Your task to perform on an android device: turn off notifications in google photos Image 0: 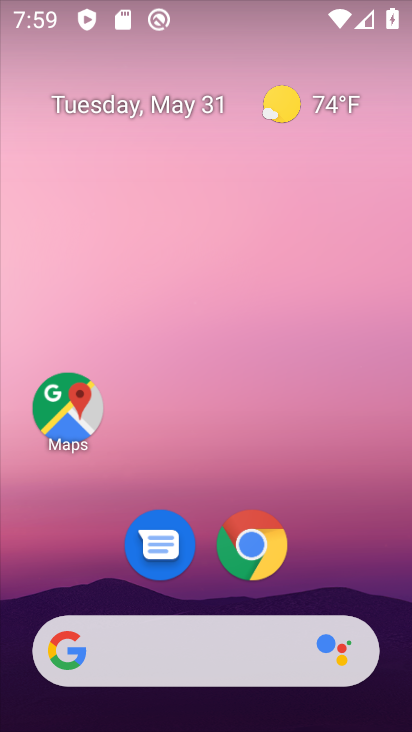
Step 0: drag from (333, 524) to (221, 1)
Your task to perform on an android device: turn off notifications in google photos Image 1: 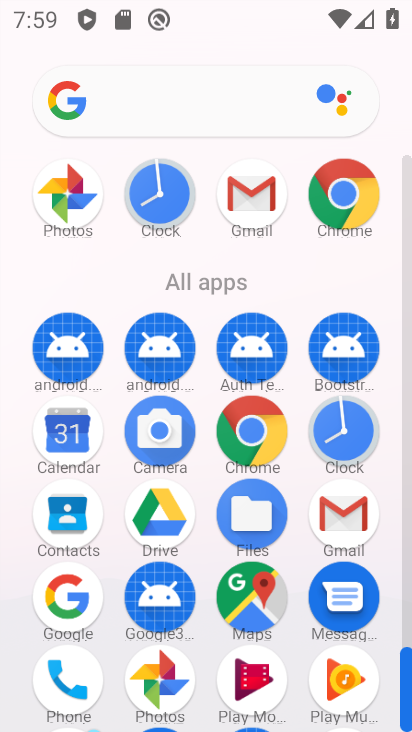
Step 1: drag from (17, 461) to (23, 257)
Your task to perform on an android device: turn off notifications in google photos Image 2: 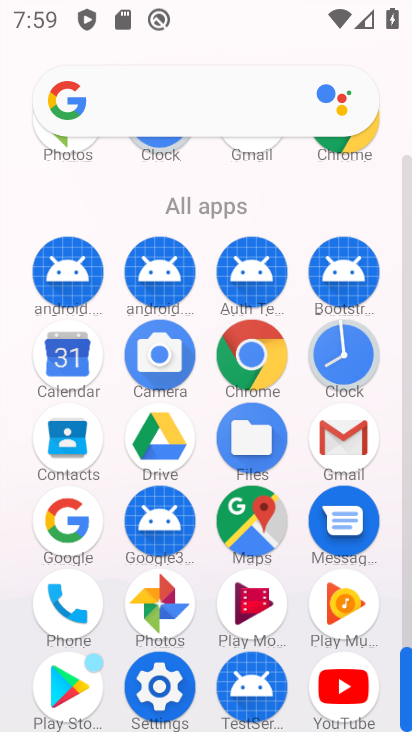
Step 2: click (154, 602)
Your task to perform on an android device: turn off notifications in google photos Image 3: 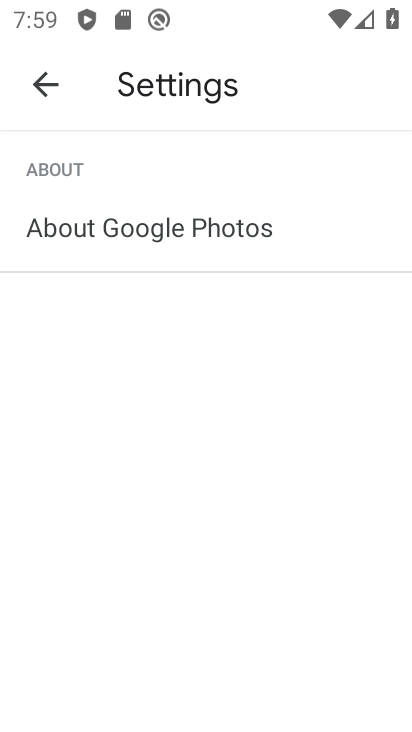
Step 3: click (39, 83)
Your task to perform on an android device: turn off notifications in google photos Image 4: 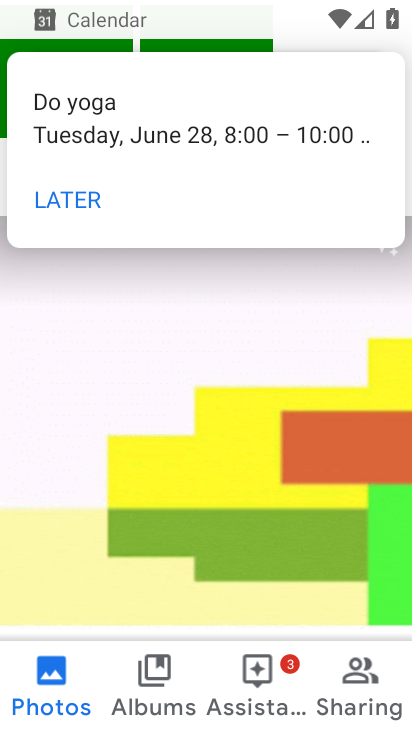
Step 4: click (78, 198)
Your task to perform on an android device: turn off notifications in google photos Image 5: 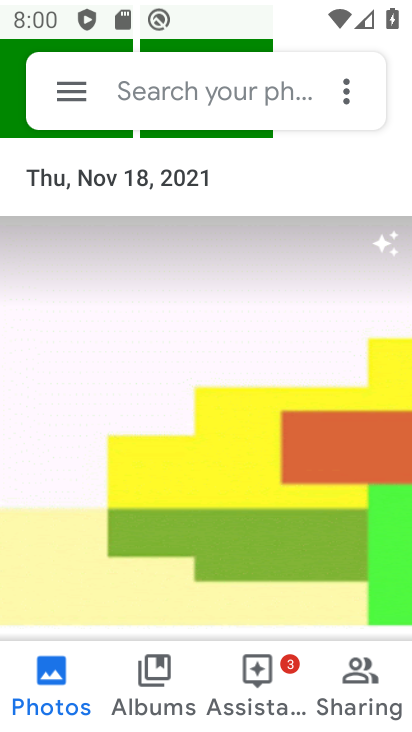
Step 5: click (72, 84)
Your task to perform on an android device: turn off notifications in google photos Image 6: 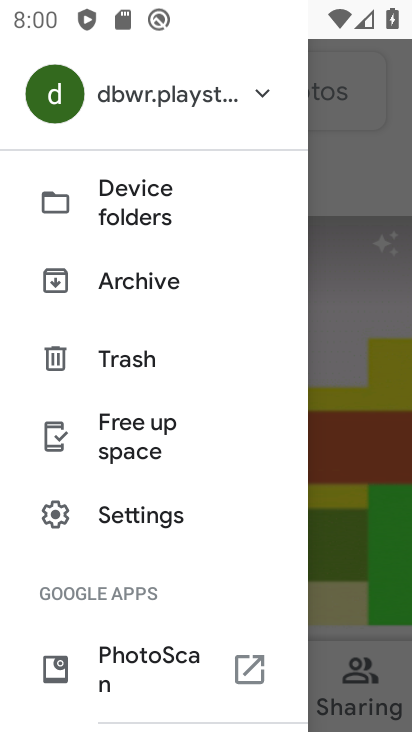
Step 6: click (154, 517)
Your task to perform on an android device: turn off notifications in google photos Image 7: 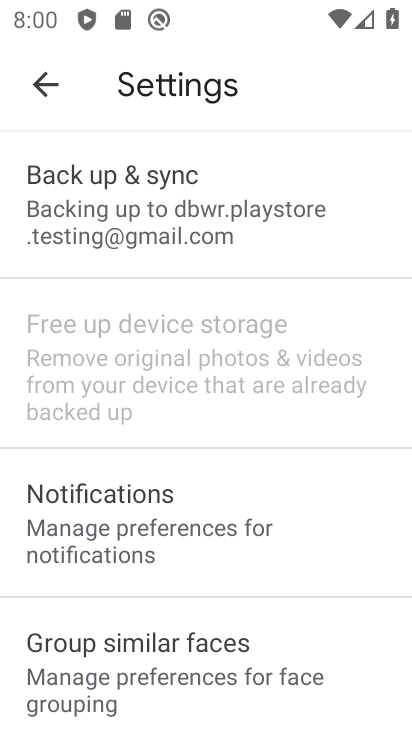
Step 7: click (198, 512)
Your task to perform on an android device: turn off notifications in google photos Image 8: 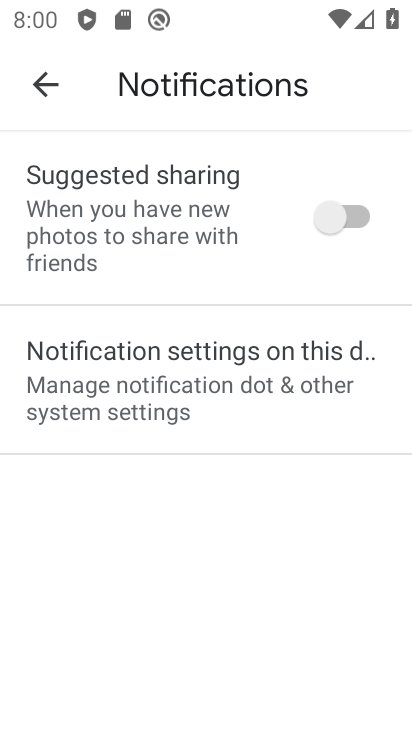
Step 8: click (203, 406)
Your task to perform on an android device: turn off notifications in google photos Image 9: 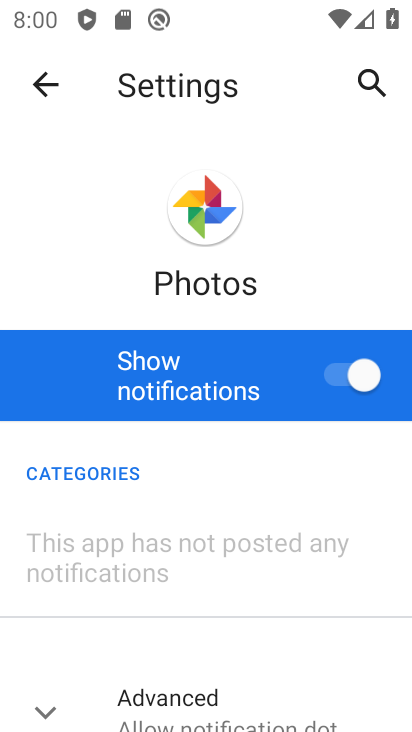
Step 9: click (339, 380)
Your task to perform on an android device: turn off notifications in google photos Image 10: 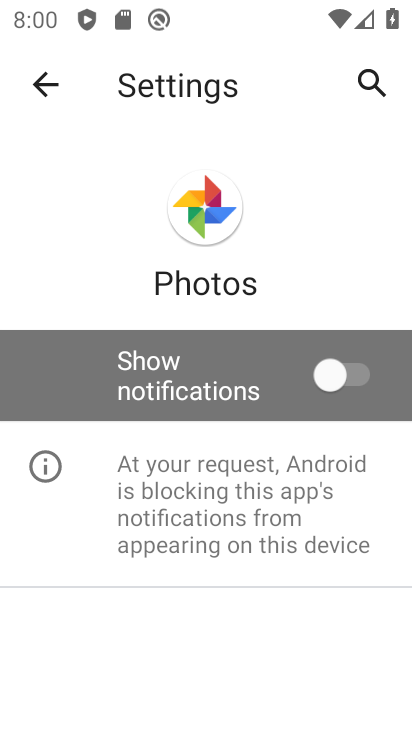
Step 10: task complete